Your task to perform on an android device: What's the weather today? Image 0: 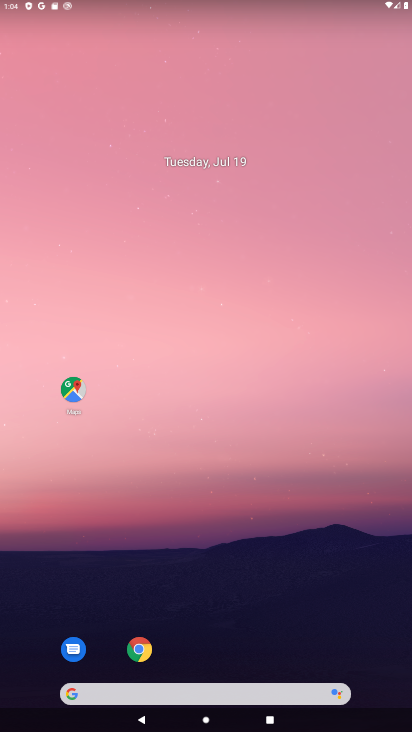
Step 0: drag from (173, 679) to (87, 18)
Your task to perform on an android device: What's the weather today? Image 1: 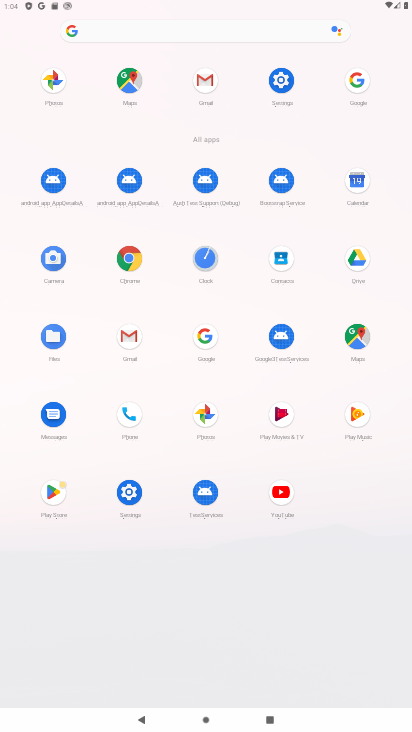
Step 1: click (202, 336)
Your task to perform on an android device: What's the weather today? Image 2: 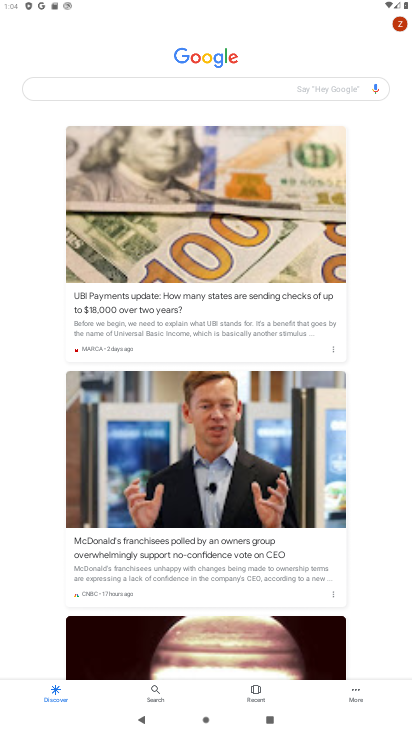
Step 2: click (318, 87)
Your task to perform on an android device: What's the weather today? Image 3: 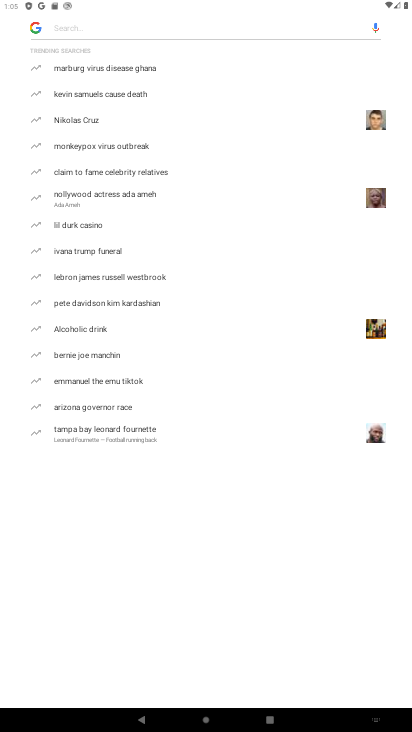
Step 3: type "weatger"
Your task to perform on an android device: What's the weather today? Image 4: 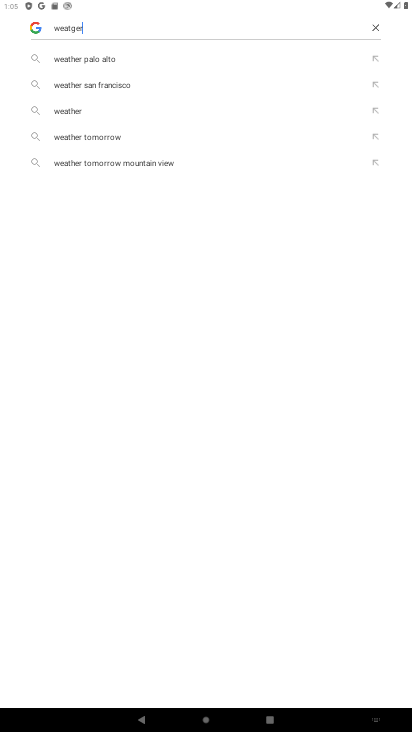
Step 4: click (159, 62)
Your task to perform on an android device: What's the weather today? Image 5: 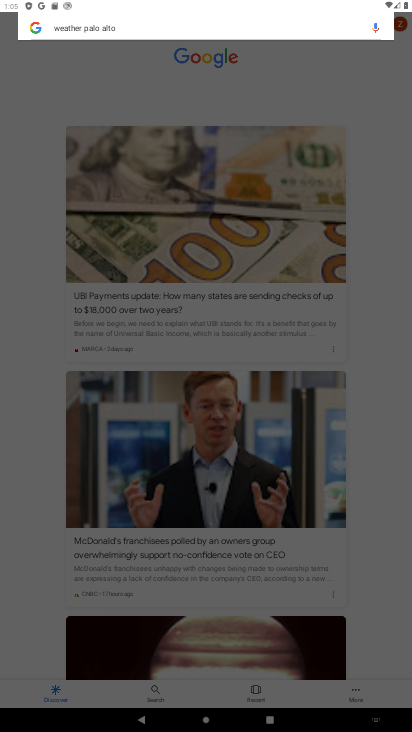
Step 5: task complete